Your task to perform on an android device: empty trash in the gmail app Image 0: 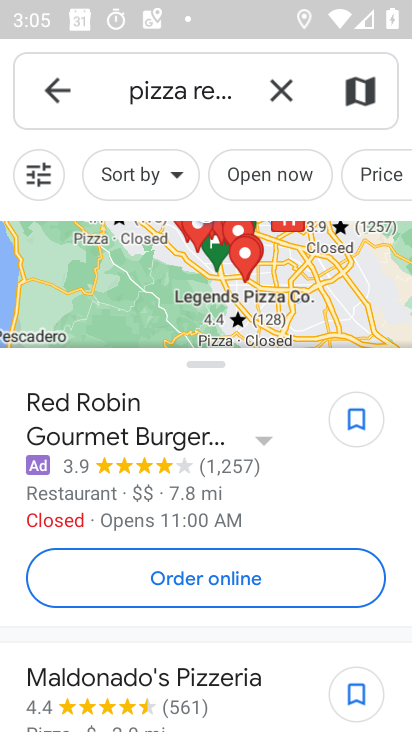
Step 0: press home button
Your task to perform on an android device: empty trash in the gmail app Image 1: 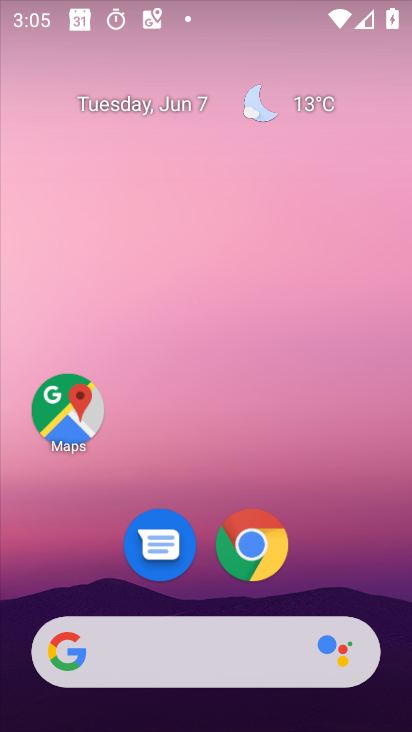
Step 1: drag from (336, 538) to (248, 71)
Your task to perform on an android device: empty trash in the gmail app Image 2: 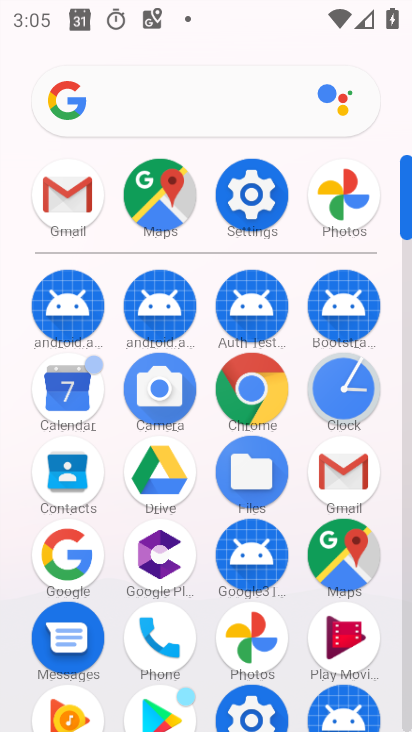
Step 2: click (347, 467)
Your task to perform on an android device: empty trash in the gmail app Image 3: 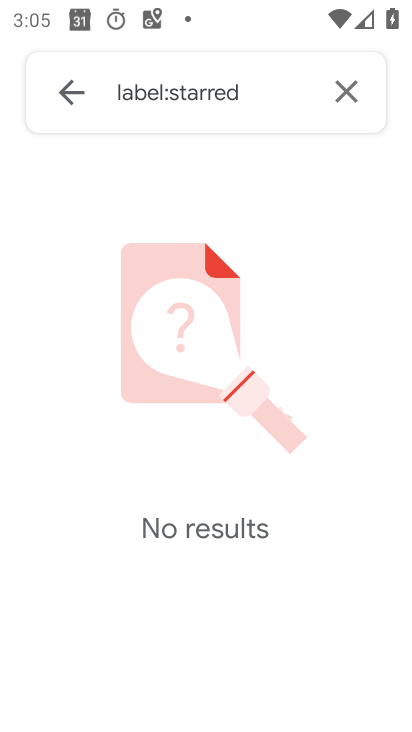
Step 3: click (359, 94)
Your task to perform on an android device: empty trash in the gmail app Image 4: 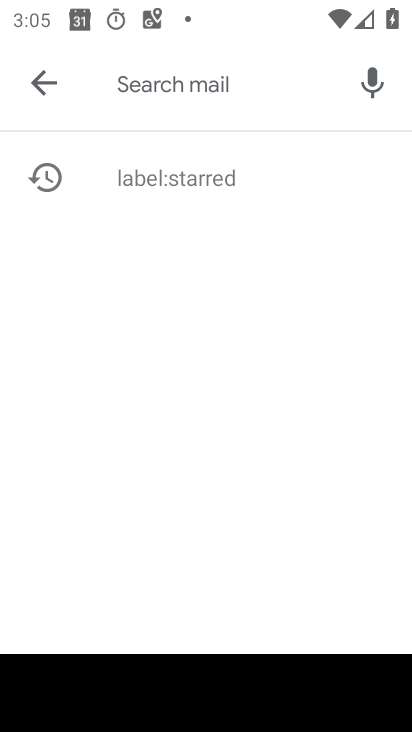
Step 4: click (45, 89)
Your task to perform on an android device: empty trash in the gmail app Image 5: 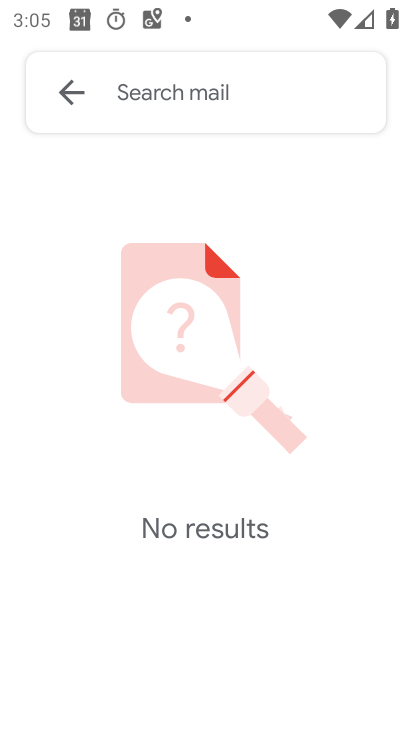
Step 5: click (65, 105)
Your task to perform on an android device: empty trash in the gmail app Image 6: 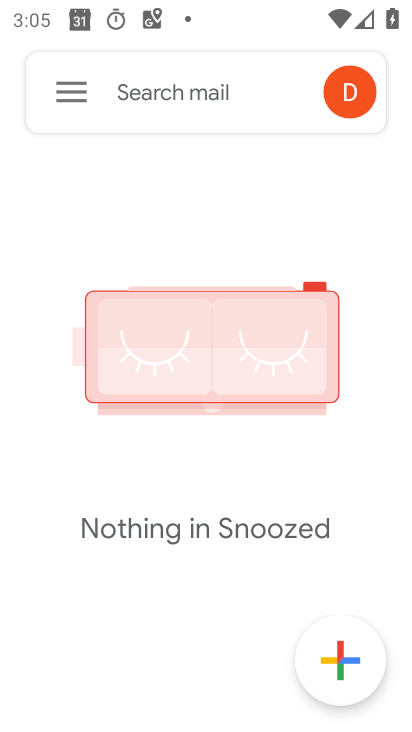
Step 6: click (90, 95)
Your task to perform on an android device: empty trash in the gmail app Image 7: 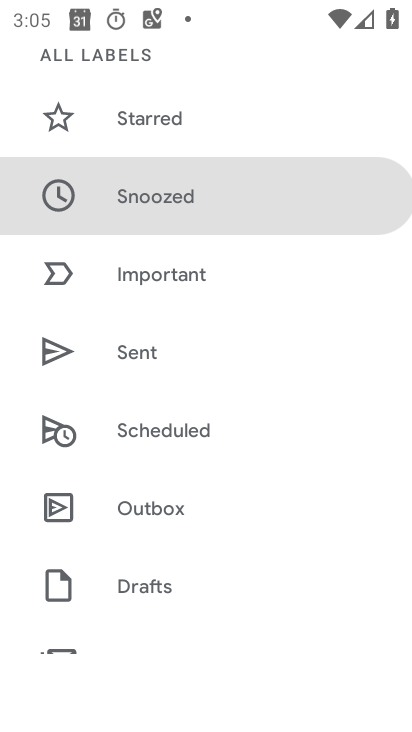
Step 7: drag from (198, 554) to (243, 225)
Your task to perform on an android device: empty trash in the gmail app Image 8: 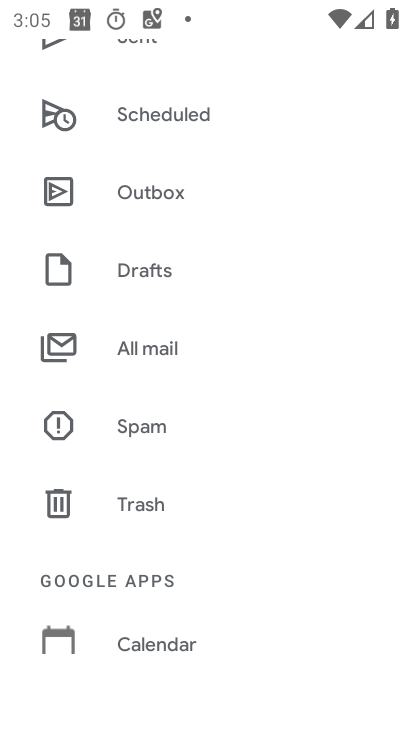
Step 8: click (153, 502)
Your task to perform on an android device: empty trash in the gmail app Image 9: 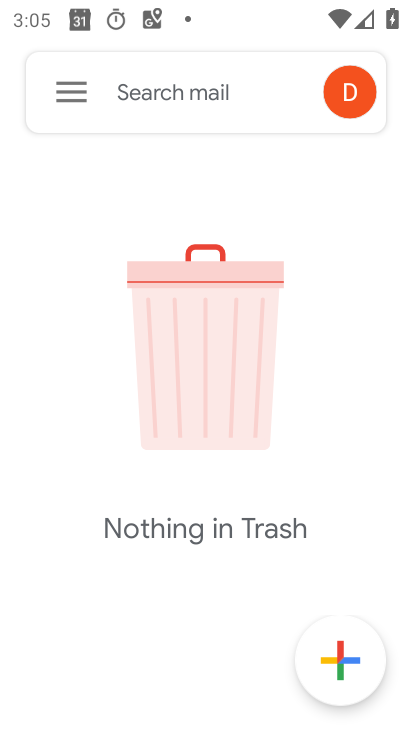
Step 9: task complete